Your task to perform on an android device: turn off improve location accuracy Image 0: 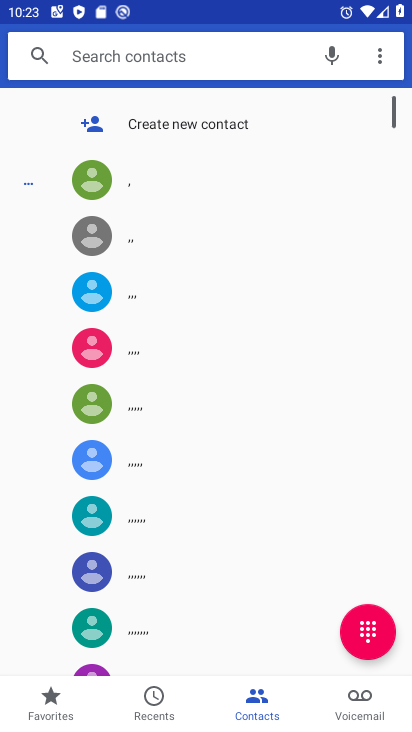
Step 0: press home button
Your task to perform on an android device: turn off improve location accuracy Image 1: 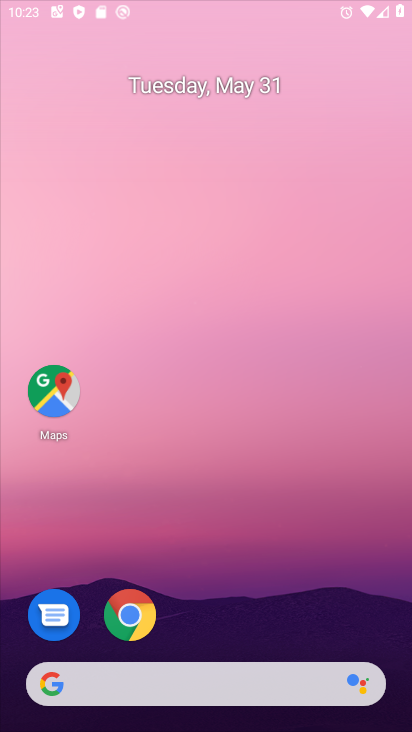
Step 1: click (409, 467)
Your task to perform on an android device: turn off improve location accuracy Image 2: 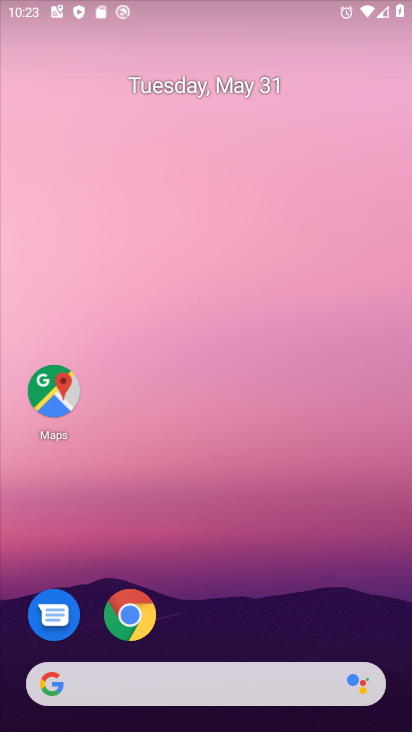
Step 2: drag from (348, 515) to (367, 41)
Your task to perform on an android device: turn off improve location accuracy Image 3: 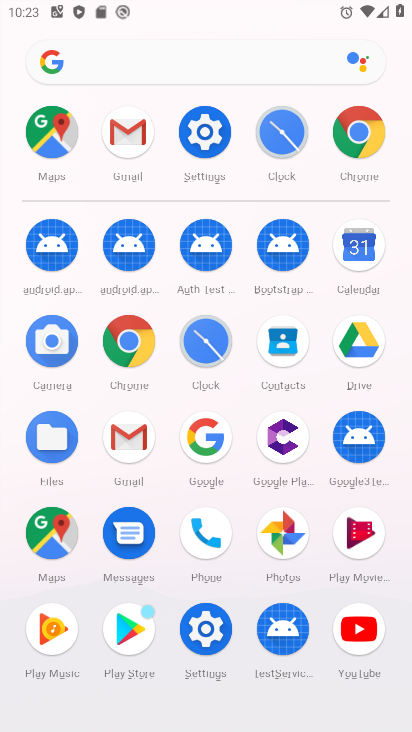
Step 3: click (212, 138)
Your task to perform on an android device: turn off improve location accuracy Image 4: 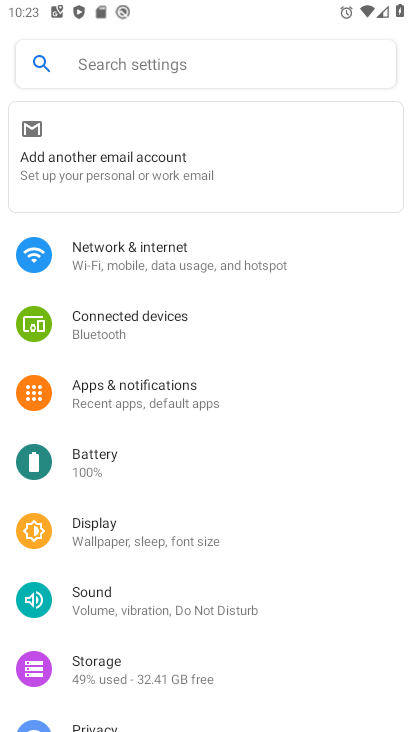
Step 4: drag from (224, 667) to (346, 229)
Your task to perform on an android device: turn off improve location accuracy Image 5: 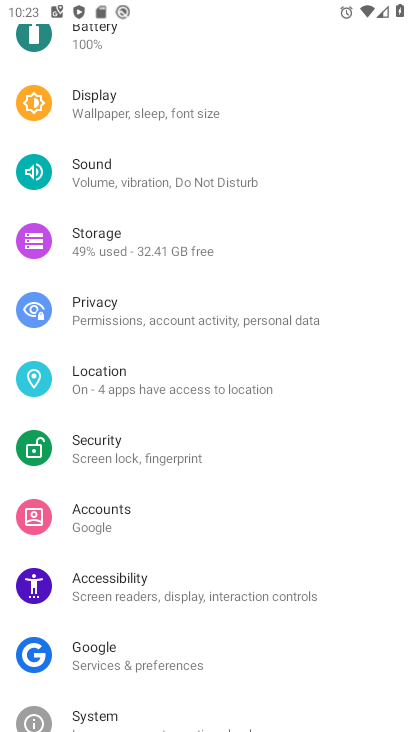
Step 5: click (105, 381)
Your task to perform on an android device: turn off improve location accuracy Image 6: 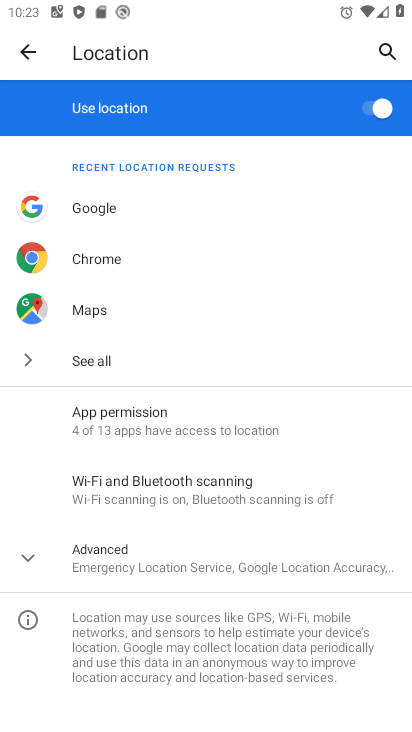
Step 6: drag from (116, 646) to (206, 258)
Your task to perform on an android device: turn off improve location accuracy Image 7: 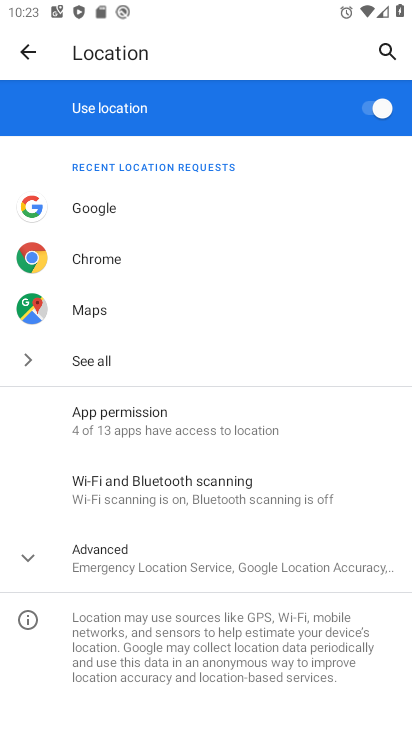
Step 7: click (170, 558)
Your task to perform on an android device: turn off improve location accuracy Image 8: 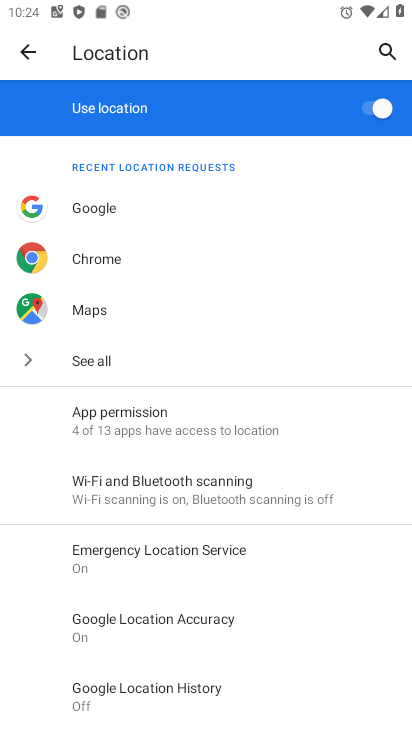
Step 8: click (203, 620)
Your task to perform on an android device: turn off improve location accuracy Image 9: 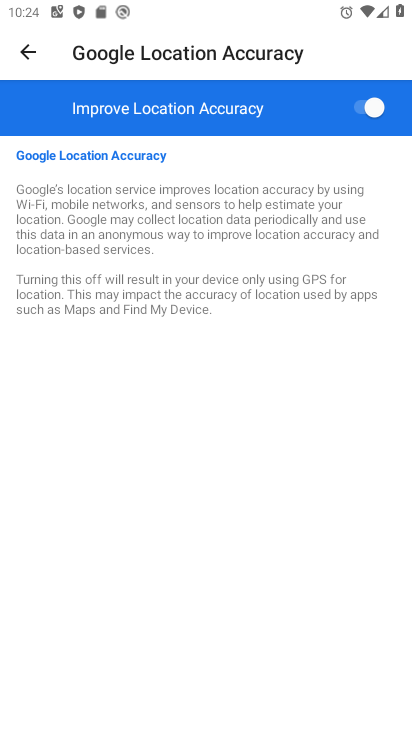
Step 9: click (383, 116)
Your task to perform on an android device: turn off improve location accuracy Image 10: 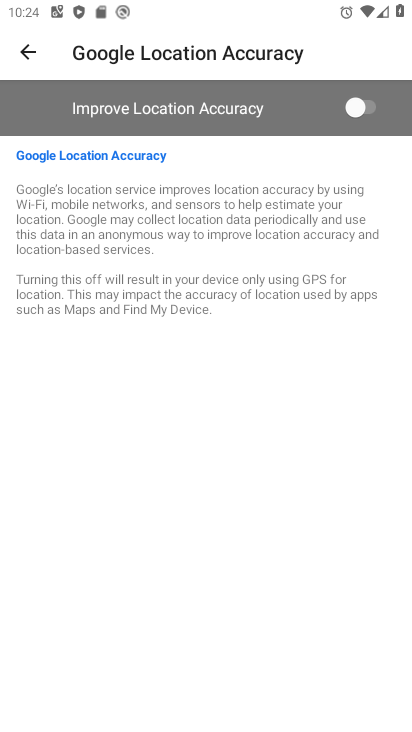
Step 10: task complete